Your task to perform on an android device: What's the weather going to be this weekend? Image 0: 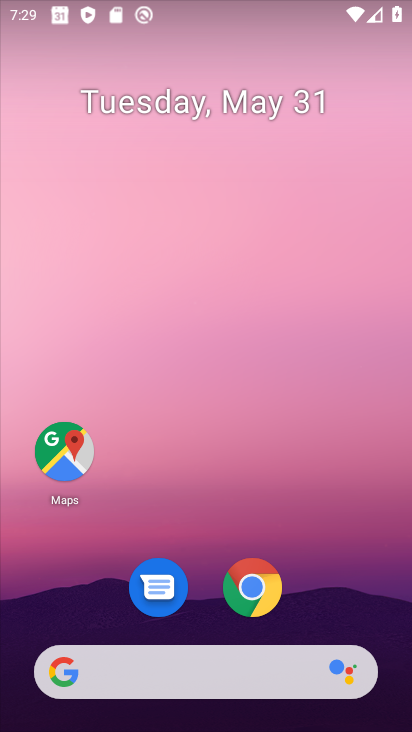
Step 0: click (169, 661)
Your task to perform on an android device: What's the weather going to be this weekend? Image 1: 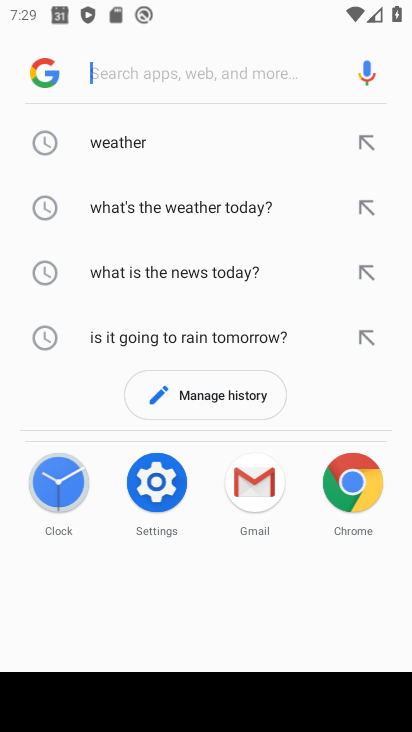
Step 1: click (115, 150)
Your task to perform on an android device: What's the weather going to be this weekend? Image 2: 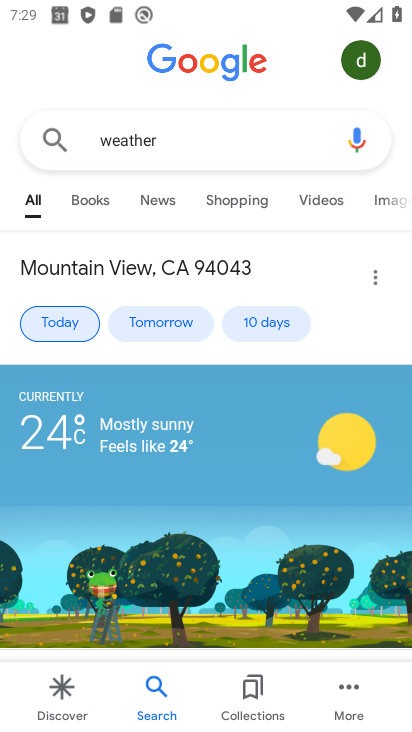
Step 2: click (267, 321)
Your task to perform on an android device: What's the weather going to be this weekend? Image 3: 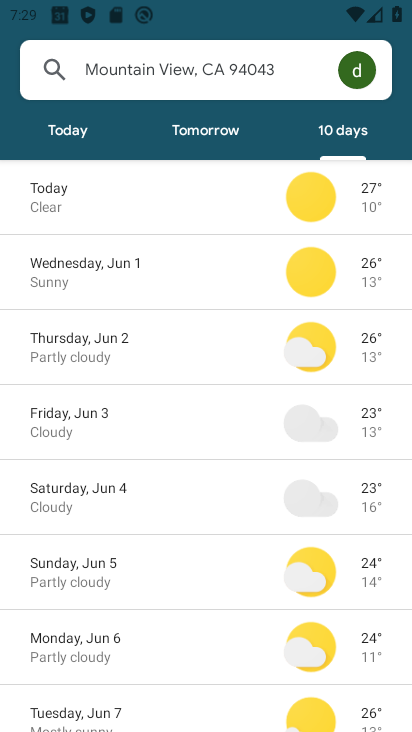
Step 3: task complete